Your task to perform on an android device: Go to Amazon Image 0: 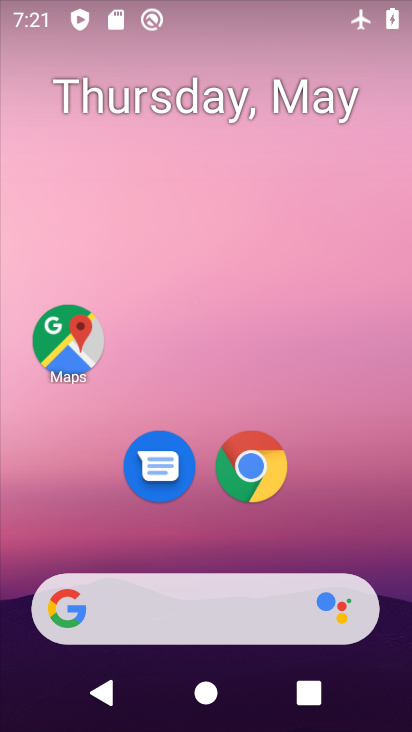
Step 0: click (251, 457)
Your task to perform on an android device: Go to Amazon Image 1: 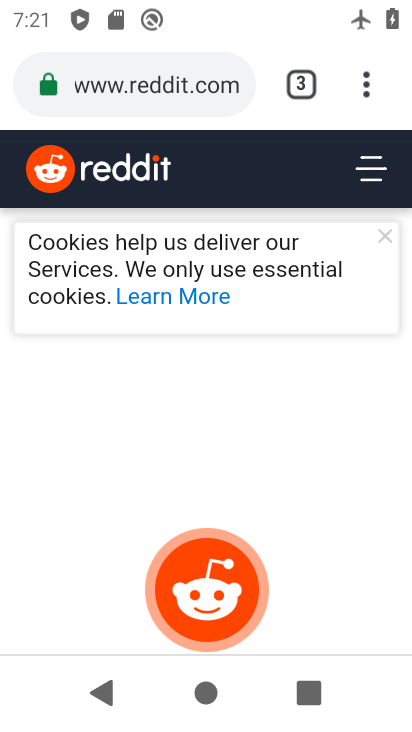
Step 1: click (368, 78)
Your task to perform on an android device: Go to Amazon Image 2: 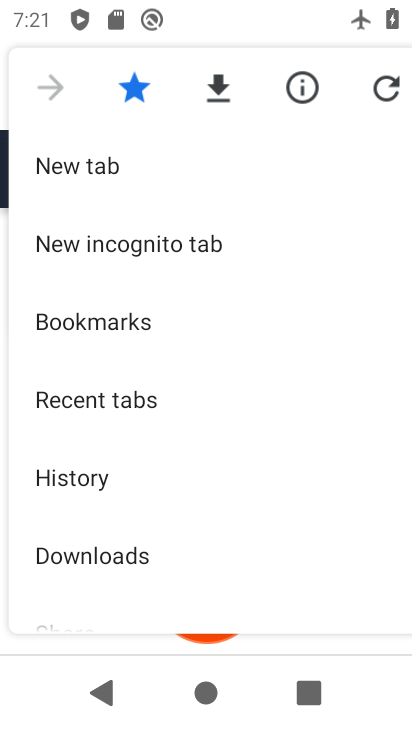
Step 2: click (99, 161)
Your task to perform on an android device: Go to Amazon Image 3: 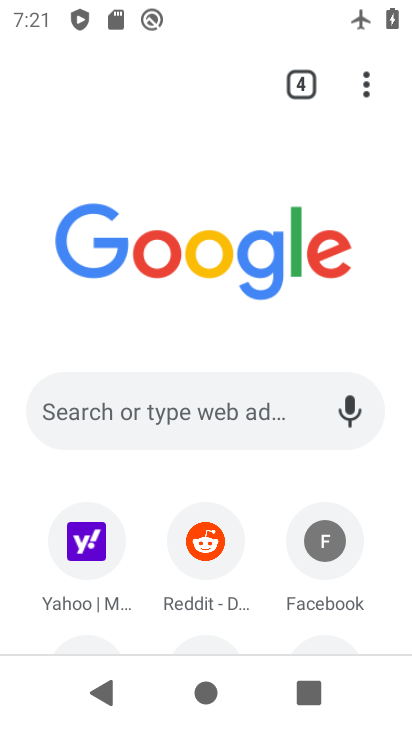
Step 3: drag from (152, 581) to (147, 352)
Your task to perform on an android device: Go to Amazon Image 4: 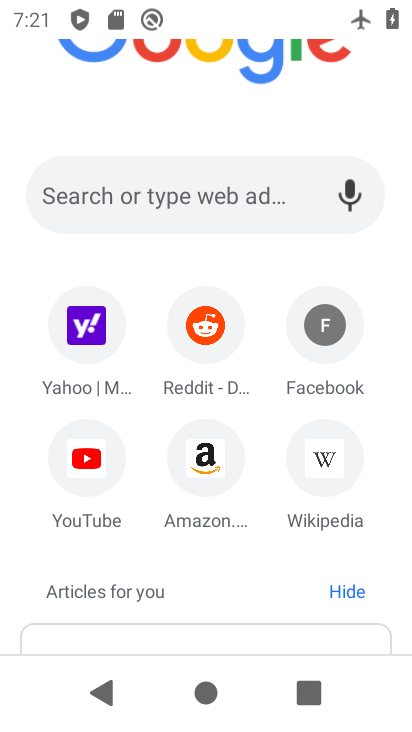
Step 4: click (202, 469)
Your task to perform on an android device: Go to Amazon Image 5: 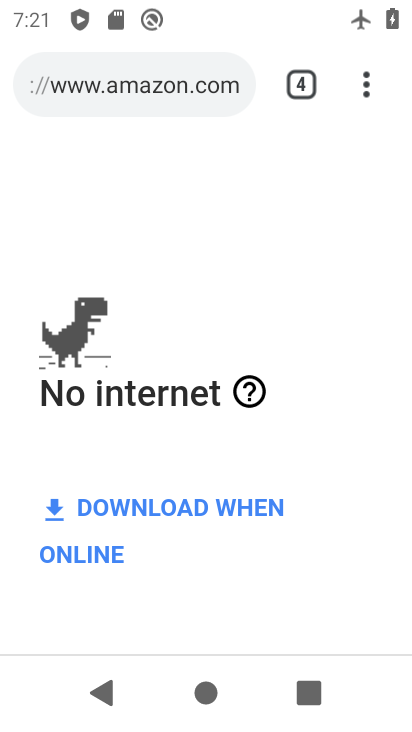
Step 5: task complete